Your task to perform on an android device: Go to eBay Image 0: 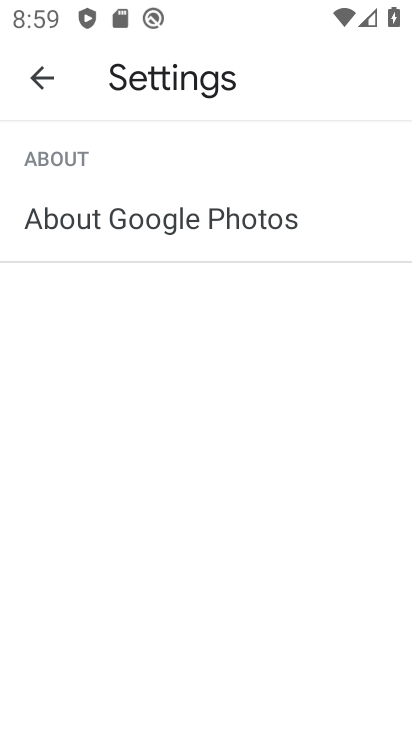
Step 0: press home button
Your task to perform on an android device: Go to eBay Image 1: 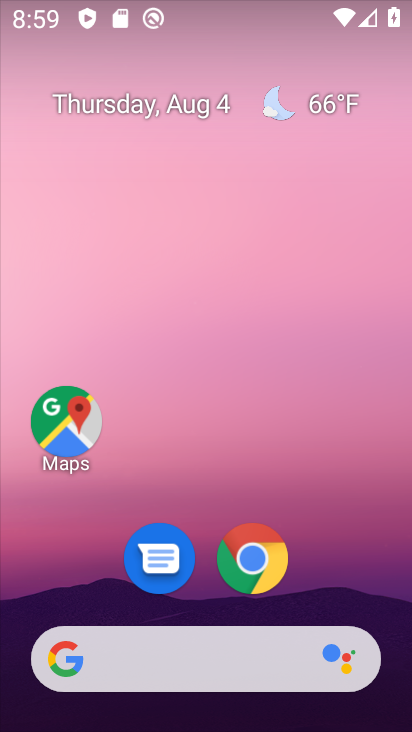
Step 1: drag from (363, 575) to (410, 316)
Your task to perform on an android device: Go to eBay Image 2: 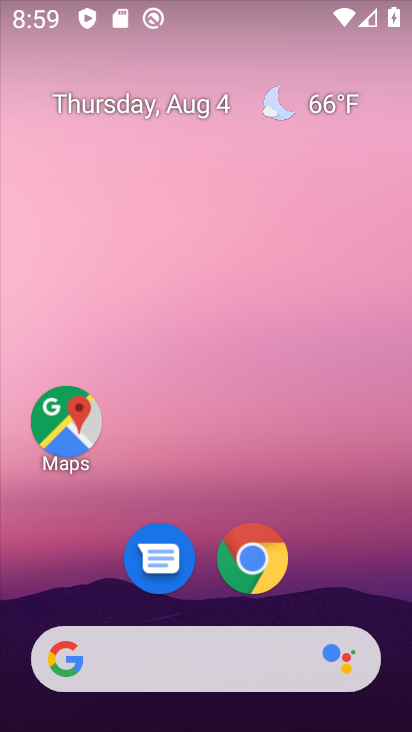
Step 2: drag from (344, 441) to (310, 143)
Your task to perform on an android device: Go to eBay Image 3: 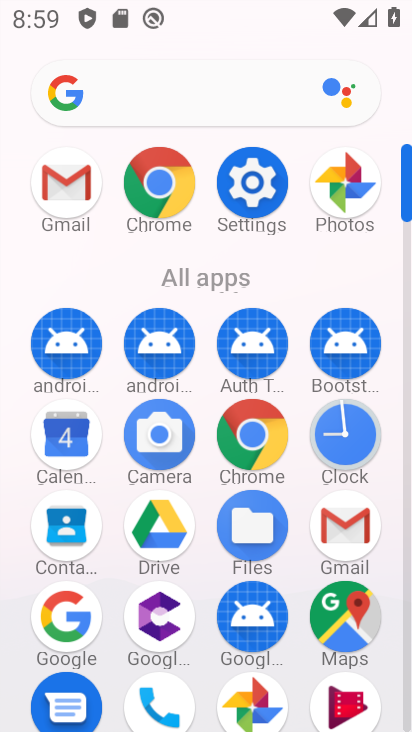
Step 3: click (260, 434)
Your task to perform on an android device: Go to eBay Image 4: 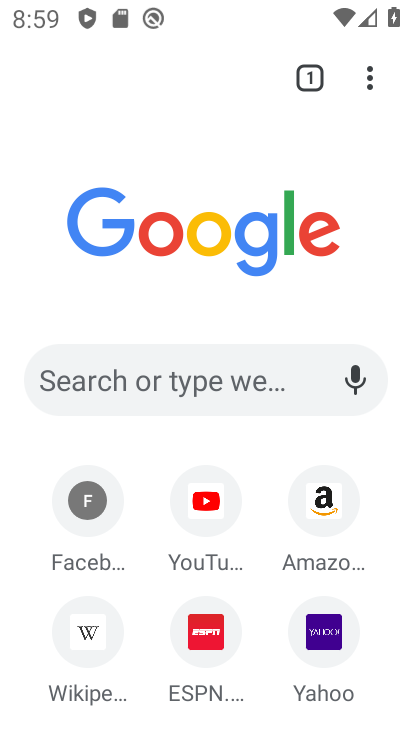
Step 4: click (188, 388)
Your task to perform on an android device: Go to eBay Image 5: 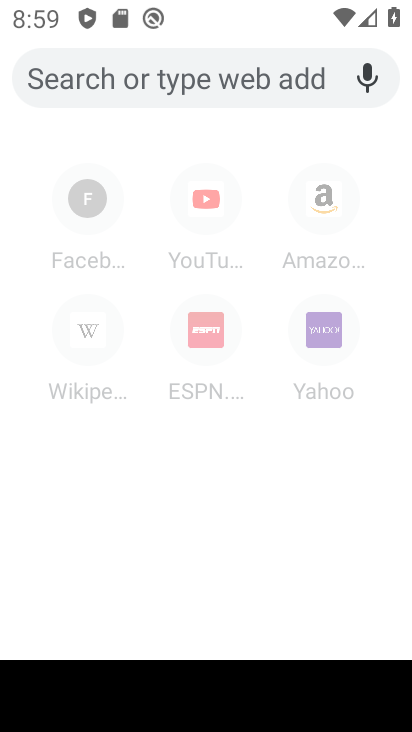
Step 5: type "ebay"
Your task to perform on an android device: Go to eBay Image 6: 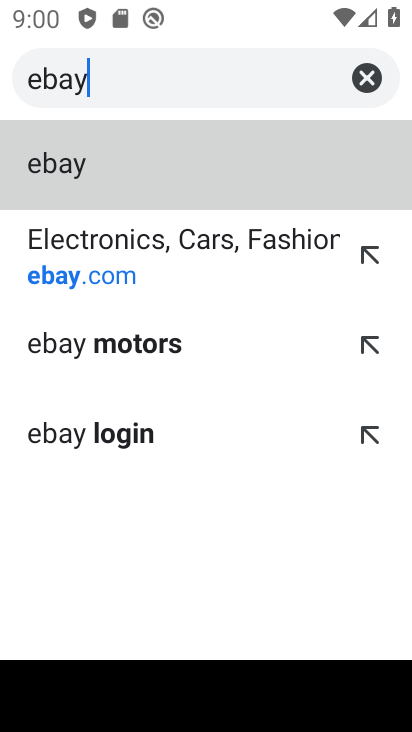
Step 6: click (60, 274)
Your task to perform on an android device: Go to eBay Image 7: 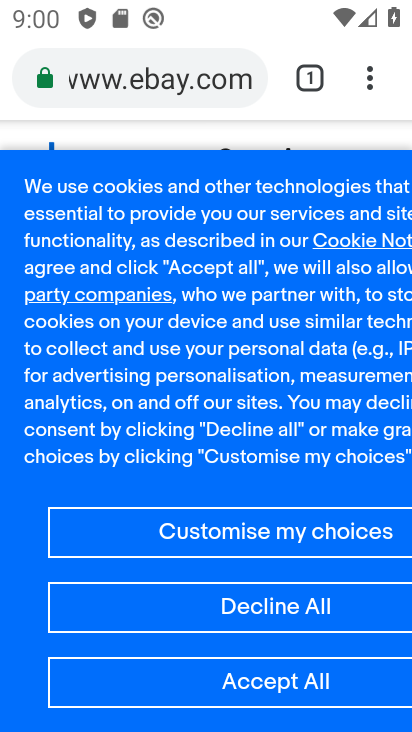
Step 7: task complete